Your task to perform on an android device: turn smart compose on in the gmail app Image 0: 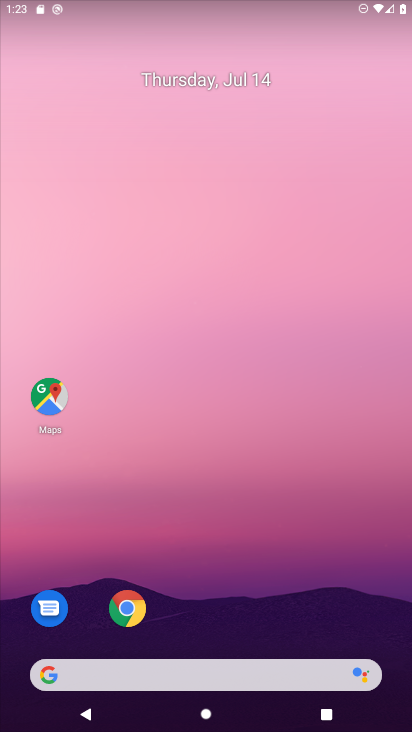
Step 0: drag from (226, 722) to (215, 99)
Your task to perform on an android device: turn smart compose on in the gmail app Image 1: 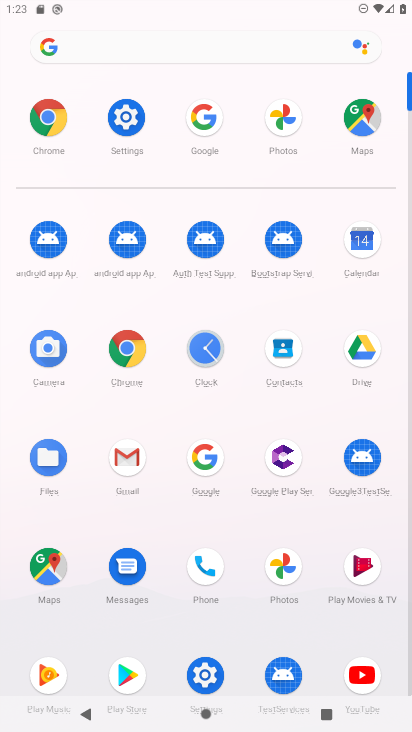
Step 1: click (125, 463)
Your task to perform on an android device: turn smart compose on in the gmail app Image 2: 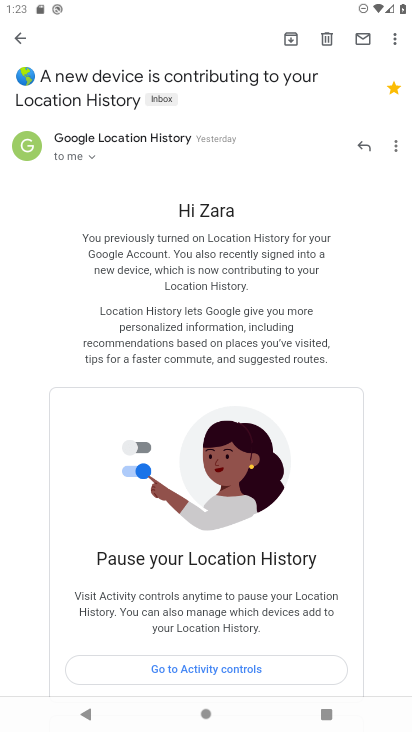
Step 2: click (20, 38)
Your task to perform on an android device: turn smart compose on in the gmail app Image 3: 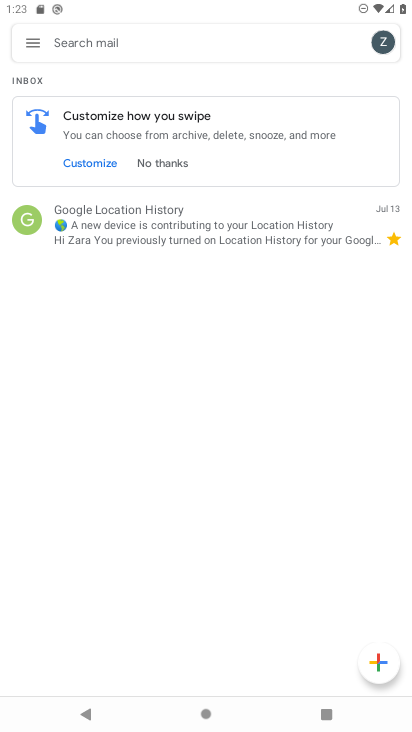
Step 3: click (32, 40)
Your task to perform on an android device: turn smart compose on in the gmail app Image 4: 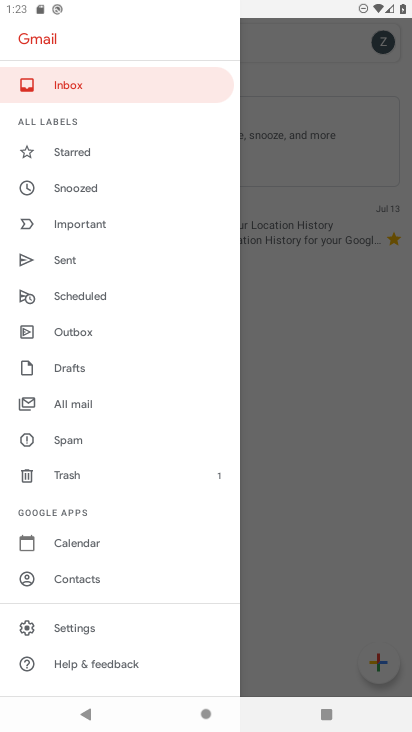
Step 4: click (83, 629)
Your task to perform on an android device: turn smart compose on in the gmail app Image 5: 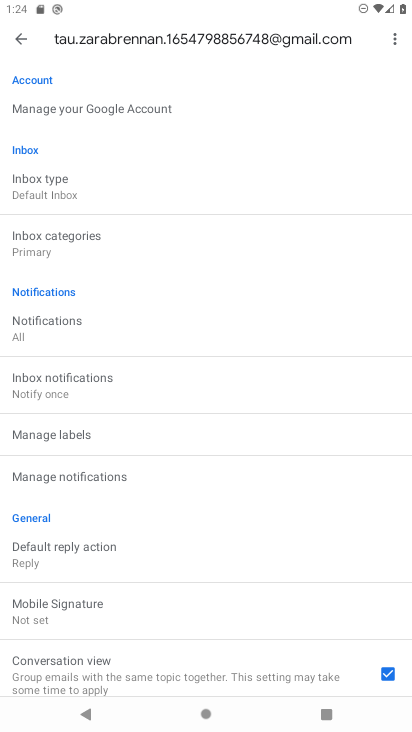
Step 5: task complete